Your task to perform on an android device: Show me recent news Image 0: 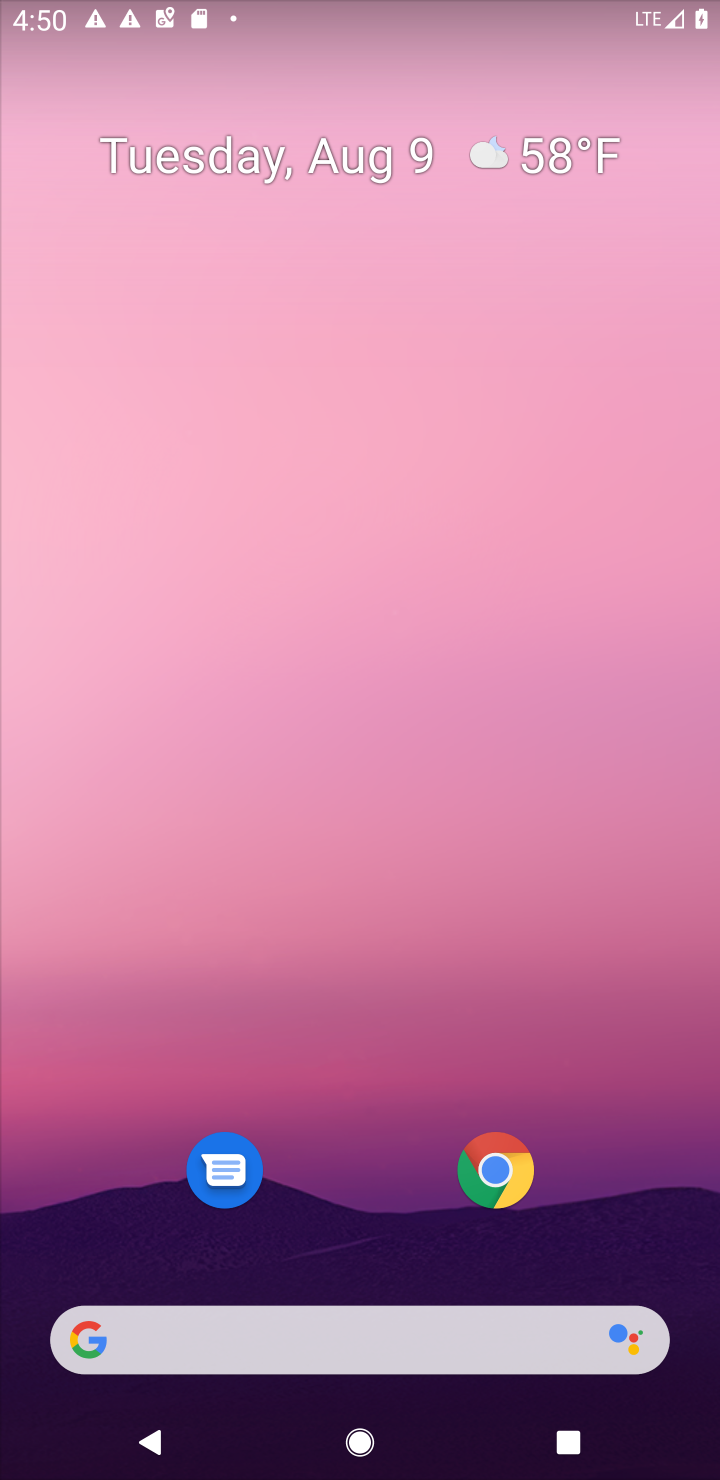
Step 0: press home button
Your task to perform on an android device: Show me recent news Image 1: 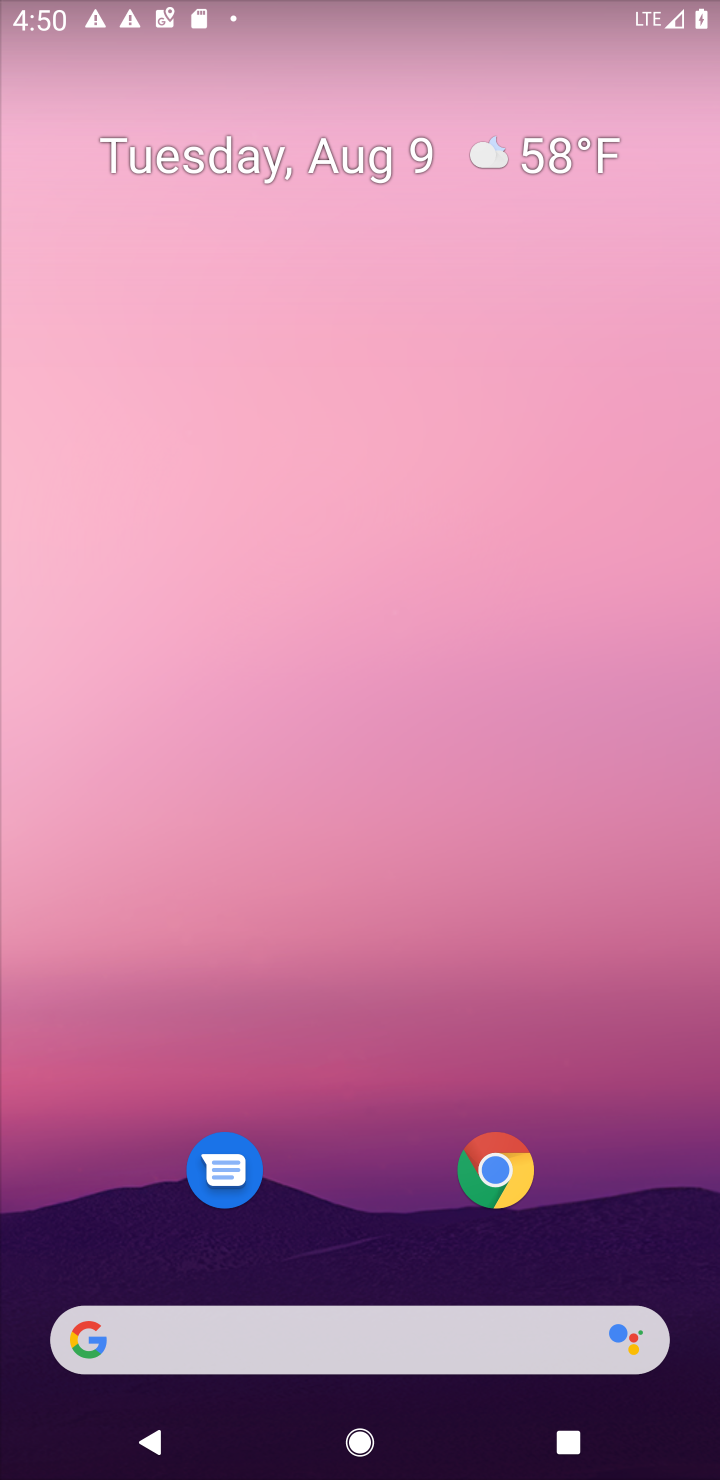
Step 1: click (88, 1347)
Your task to perform on an android device: Show me recent news Image 2: 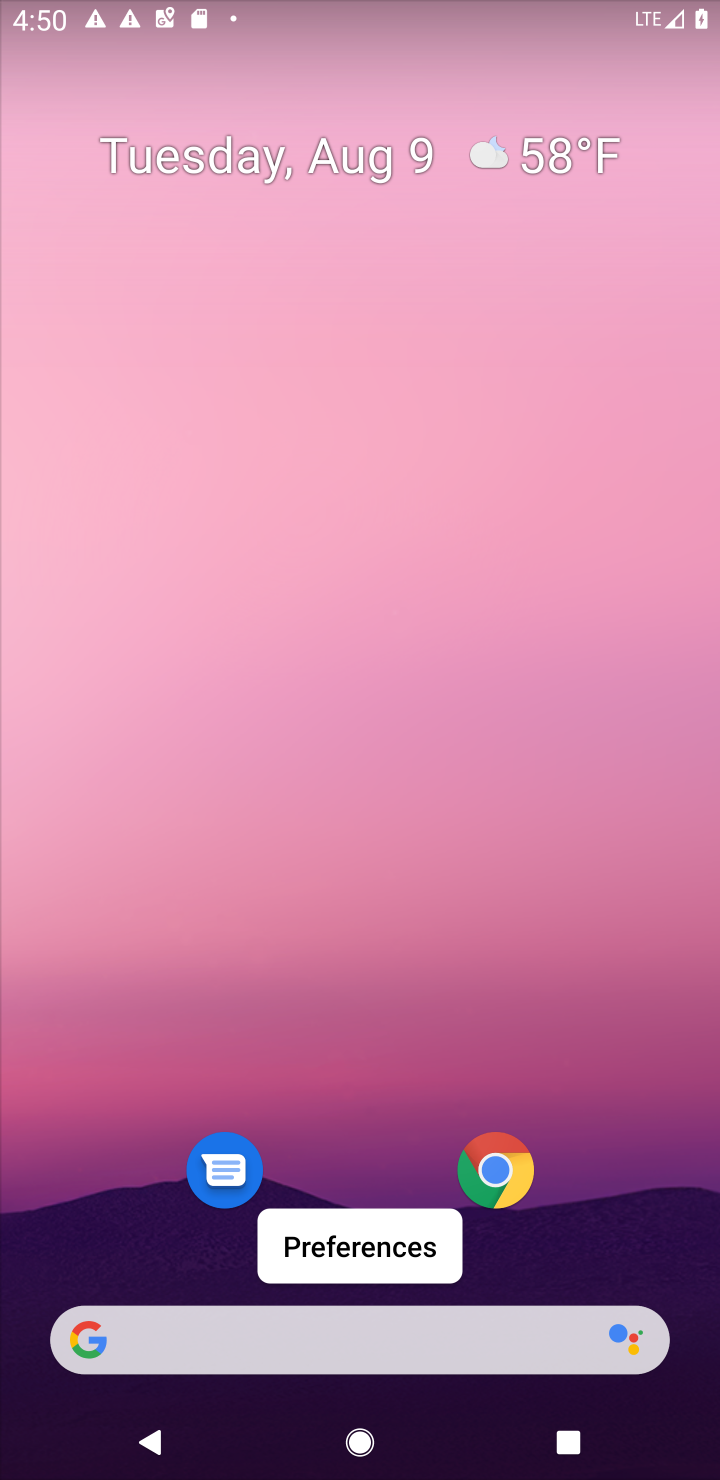
Step 2: click (88, 1347)
Your task to perform on an android device: Show me recent news Image 3: 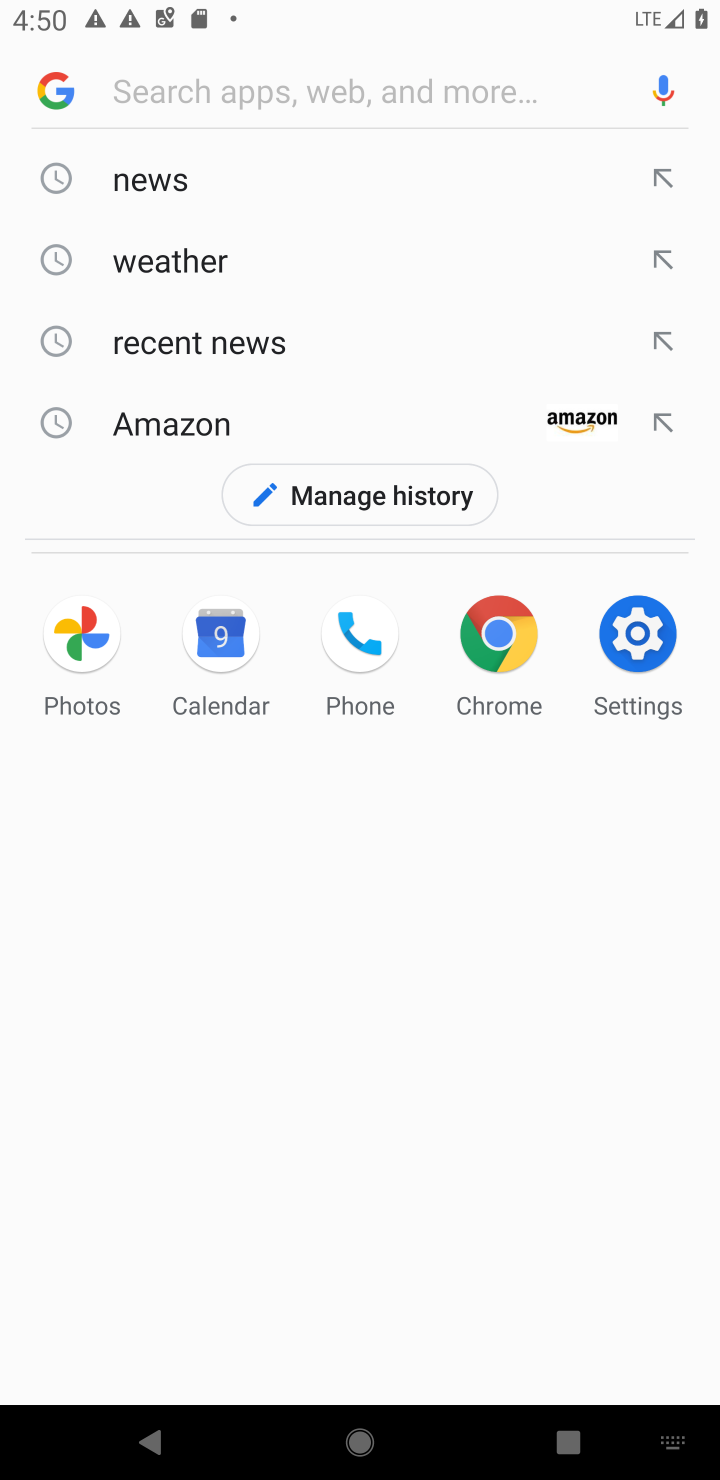
Step 3: click (219, 339)
Your task to perform on an android device: Show me recent news Image 4: 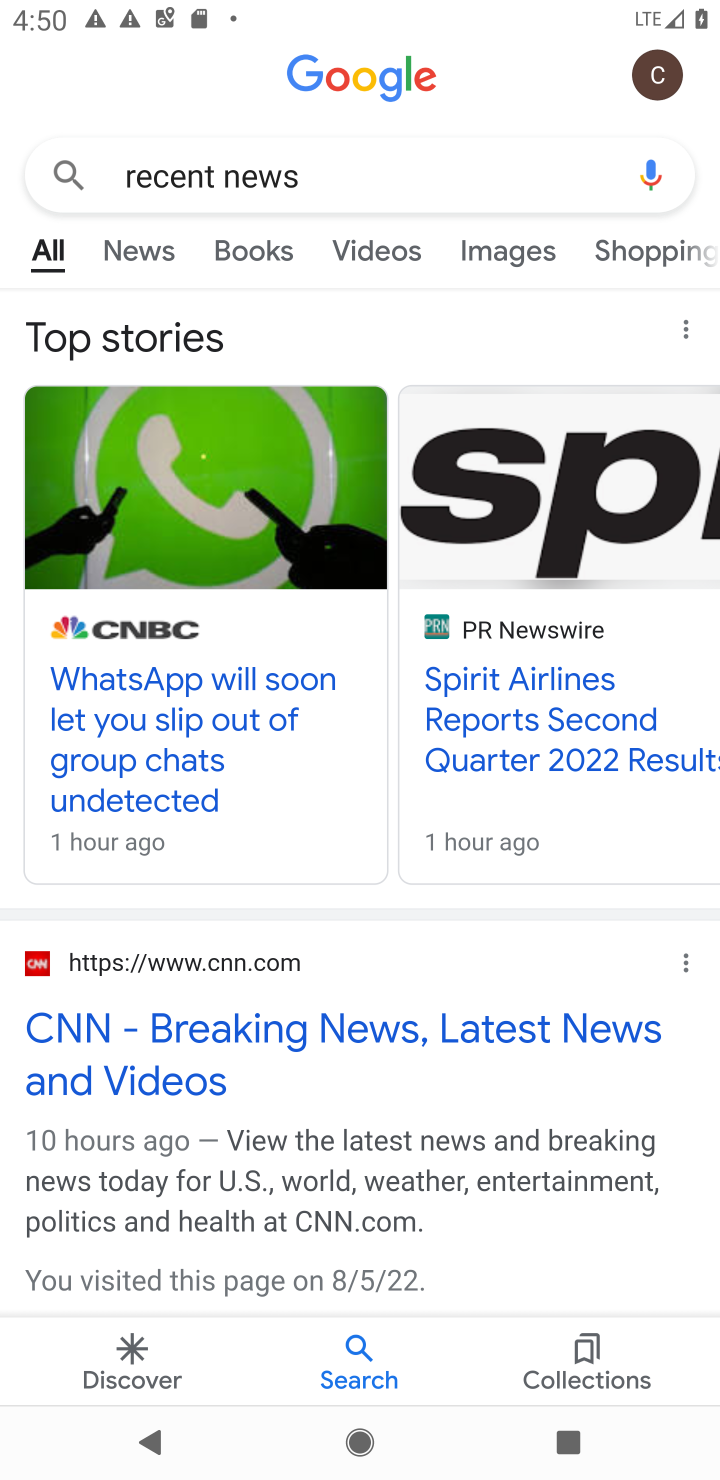
Step 4: task complete